Your task to perform on an android device: Open Google Maps and go to "Timeline" Image 0: 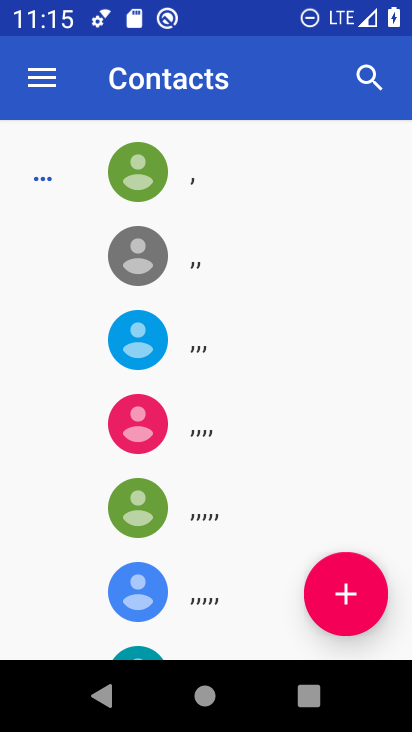
Step 0: press home button
Your task to perform on an android device: Open Google Maps and go to "Timeline" Image 1: 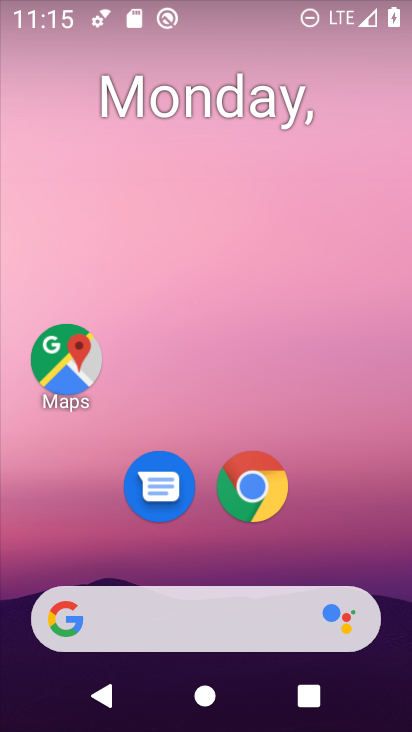
Step 1: drag from (8, 652) to (230, 169)
Your task to perform on an android device: Open Google Maps and go to "Timeline" Image 2: 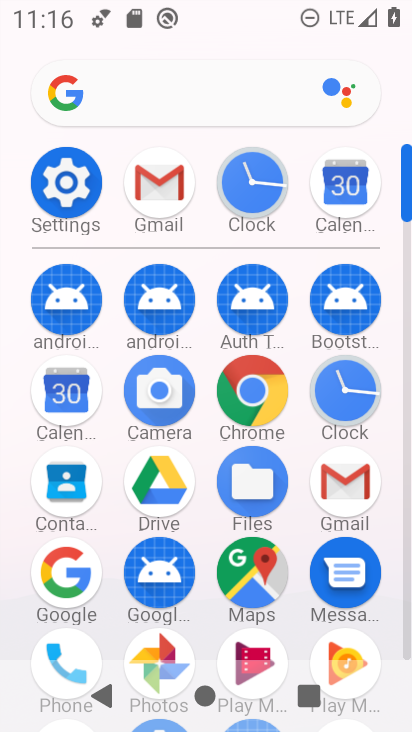
Step 2: click (242, 579)
Your task to perform on an android device: Open Google Maps and go to "Timeline" Image 3: 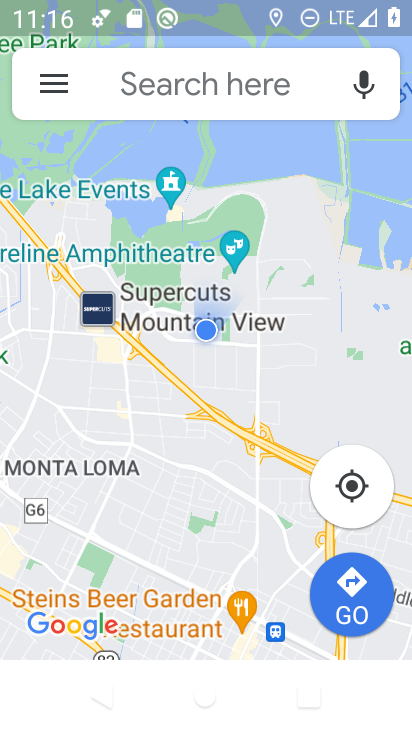
Step 3: click (45, 93)
Your task to perform on an android device: Open Google Maps and go to "Timeline" Image 4: 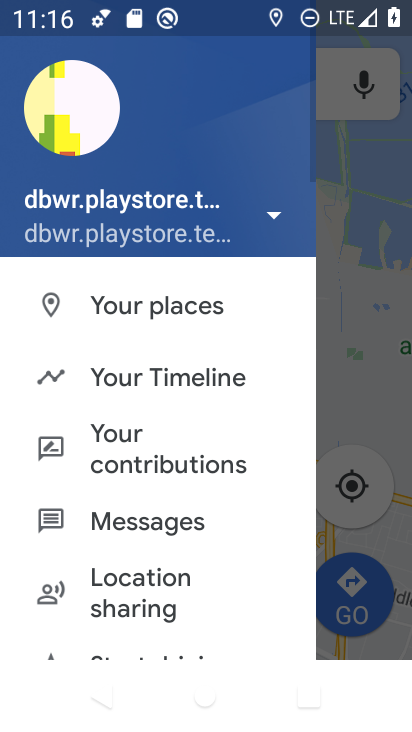
Step 4: click (145, 392)
Your task to perform on an android device: Open Google Maps and go to "Timeline" Image 5: 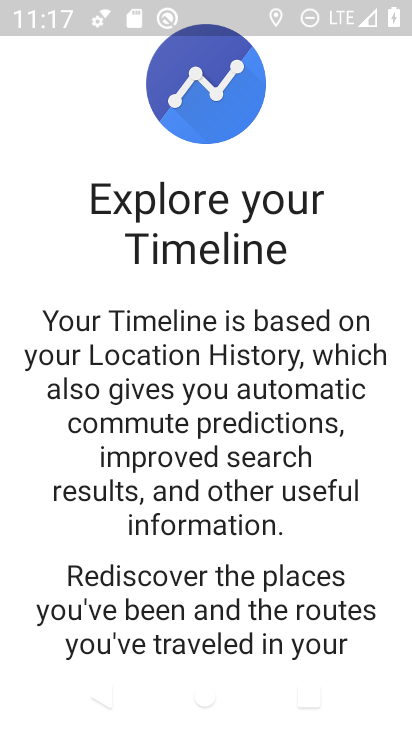
Step 5: drag from (154, 558) to (349, 161)
Your task to perform on an android device: Open Google Maps and go to "Timeline" Image 6: 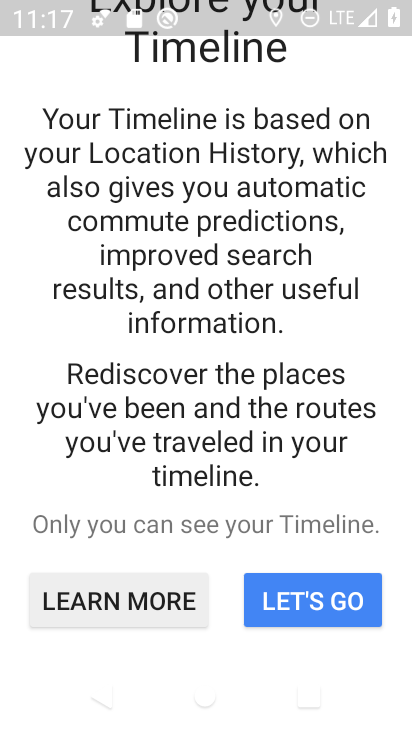
Step 6: click (282, 597)
Your task to perform on an android device: Open Google Maps and go to "Timeline" Image 7: 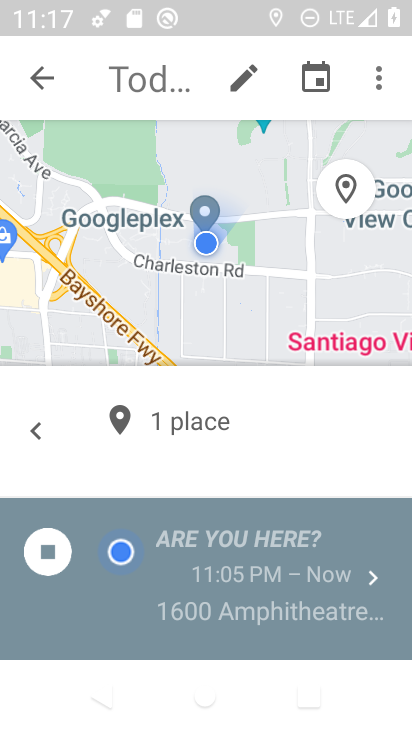
Step 7: task complete